Your task to perform on an android device: Set the phone to "Do not disturb". Image 0: 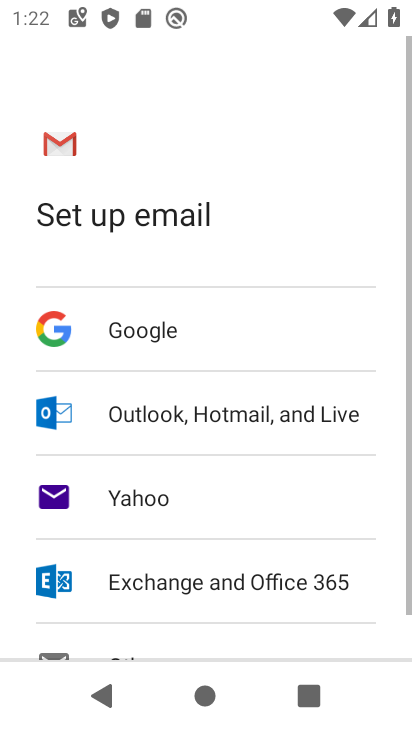
Step 0: press home button
Your task to perform on an android device: Set the phone to "Do not disturb". Image 1: 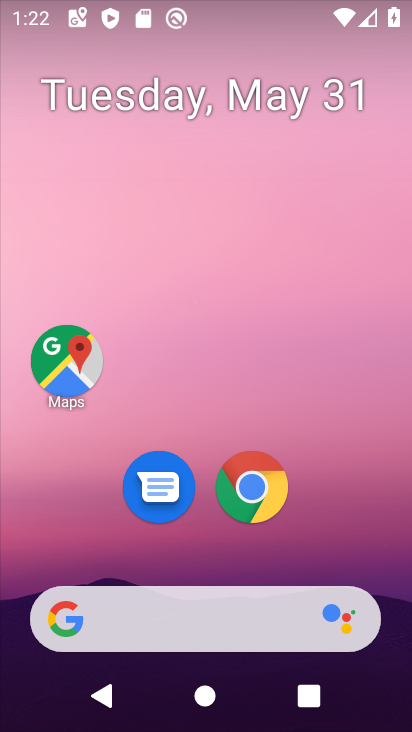
Step 1: drag from (64, 575) to (262, 15)
Your task to perform on an android device: Set the phone to "Do not disturb". Image 2: 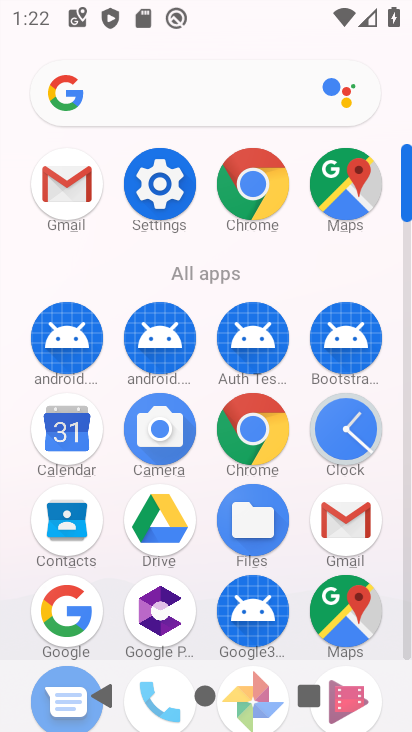
Step 2: drag from (123, 533) to (228, 236)
Your task to perform on an android device: Set the phone to "Do not disturb". Image 3: 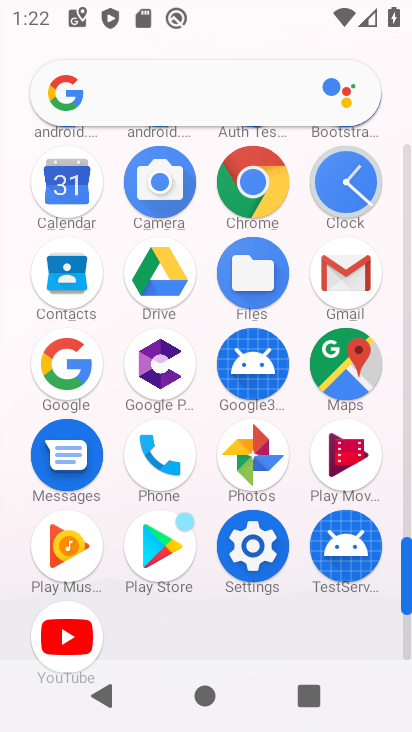
Step 3: click (236, 562)
Your task to perform on an android device: Set the phone to "Do not disturb". Image 4: 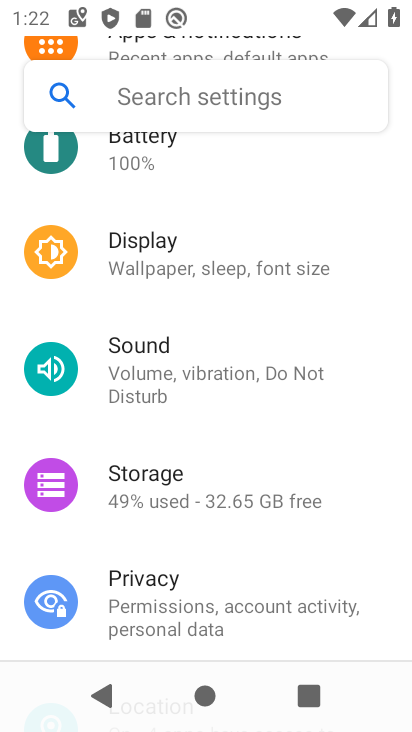
Step 4: drag from (214, 215) to (215, 564)
Your task to perform on an android device: Set the phone to "Do not disturb". Image 5: 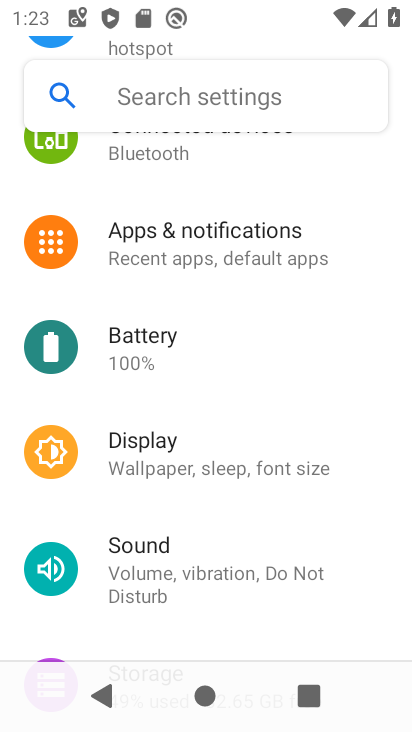
Step 5: click (240, 258)
Your task to perform on an android device: Set the phone to "Do not disturb". Image 6: 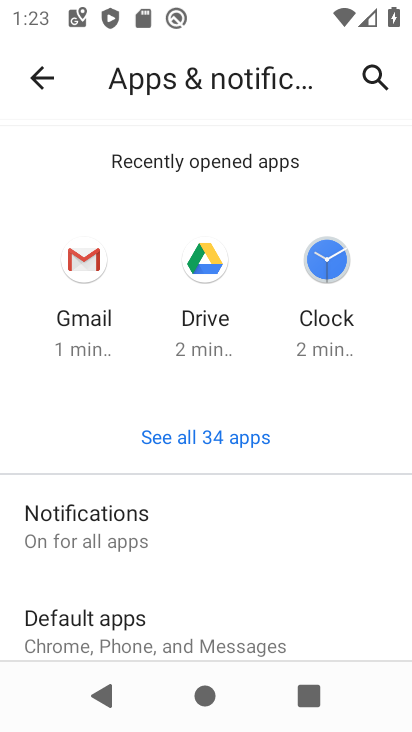
Step 6: drag from (113, 520) to (266, 96)
Your task to perform on an android device: Set the phone to "Do not disturb". Image 7: 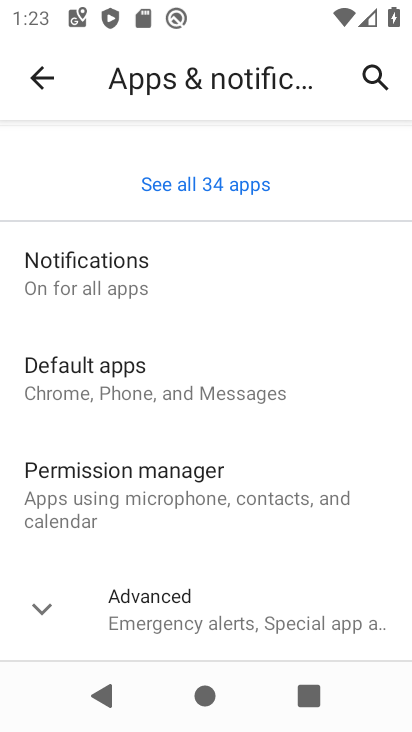
Step 7: click (166, 607)
Your task to perform on an android device: Set the phone to "Do not disturb". Image 8: 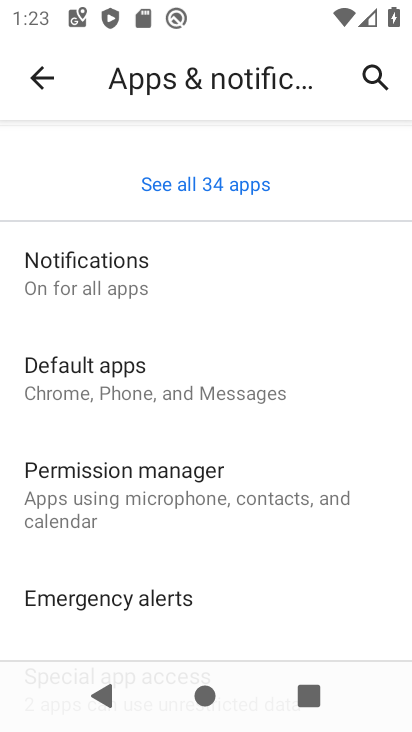
Step 8: drag from (166, 607) to (278, 237)
Your task to perform on an android device: Set the phone to "Do not disturb". Image 9: 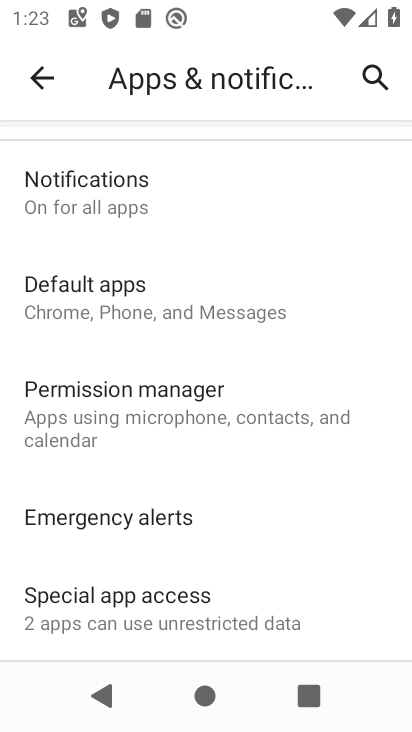
Step 9: click (153, 174)
Your task to perform on an android device: Set the phone to "Do not disturb". Image 10: 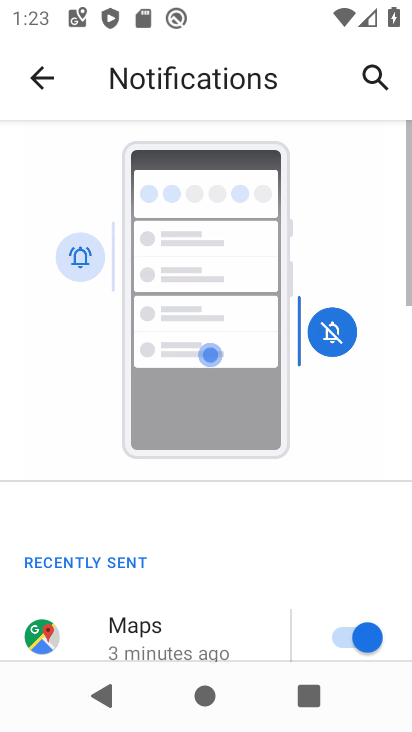
Step 10: drag from (167, 632) to (302, 0)
Your task to perform on an android device: Set the phone to "Do not disturb". Image 11: 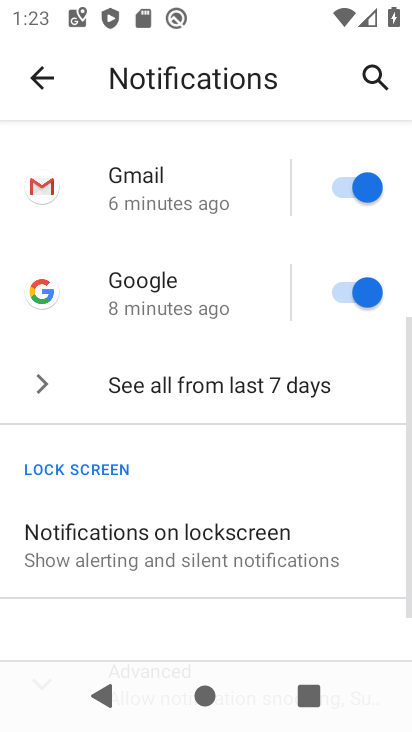
Step 11: drag from (168, 543) to (272, 31)
Your task to perform on an android device: Set the phone to "Do not disturb". Image 12: 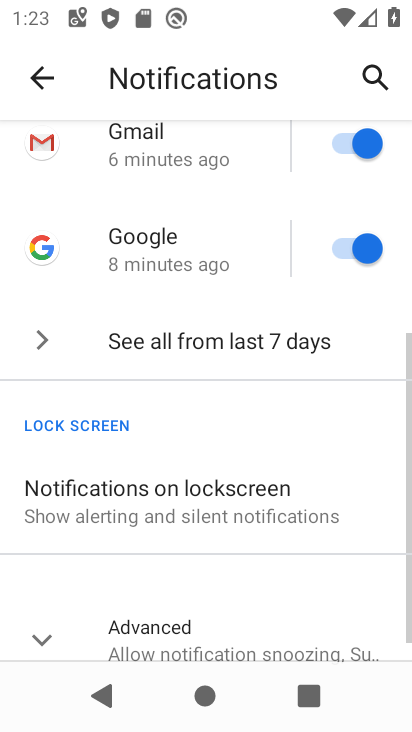
Step 12: click (205, 628)
Your task to perform on an android device: Set the phone to "Do not disturb". Image 13: 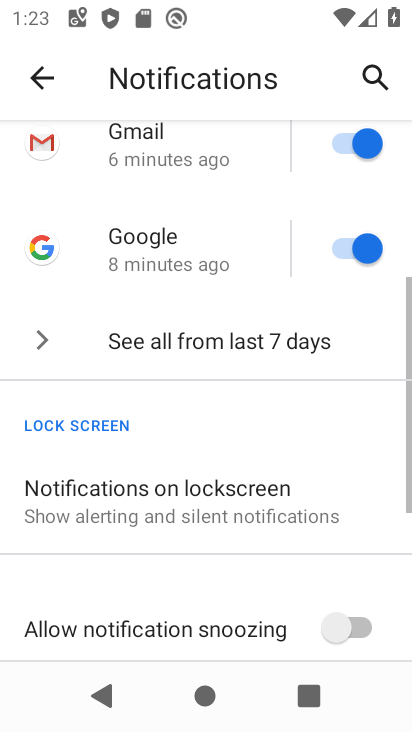
Step 13: drag from (210, 605) to (363, 16)
Your task to perform on an android device: Set the phone to "Do not disturb". Image 14: 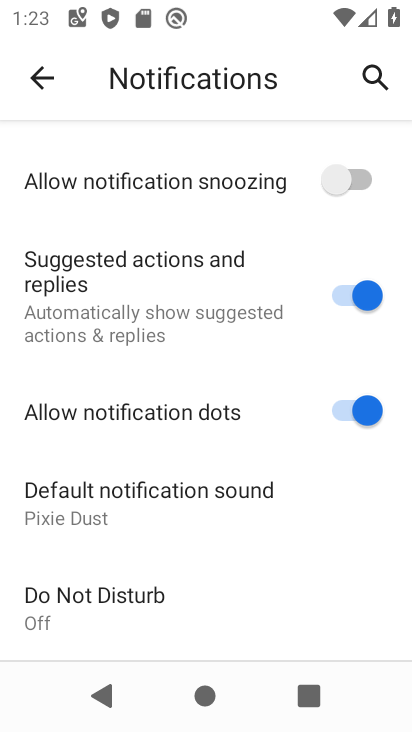
Step 14: click (239, 613)
Your task to perform on an android device: Set the phone to "Do not disturb". Image 15: 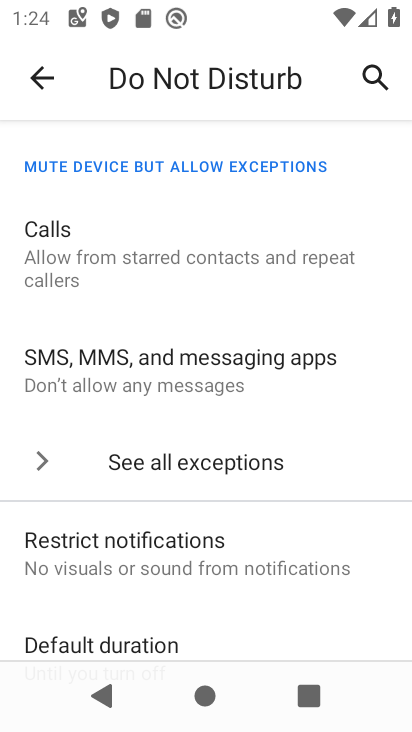
Step 15: drag from (215, 665) to (333, 74)
Your task to perform on an android device: Set the phone to "Do not disturb". Image 16: 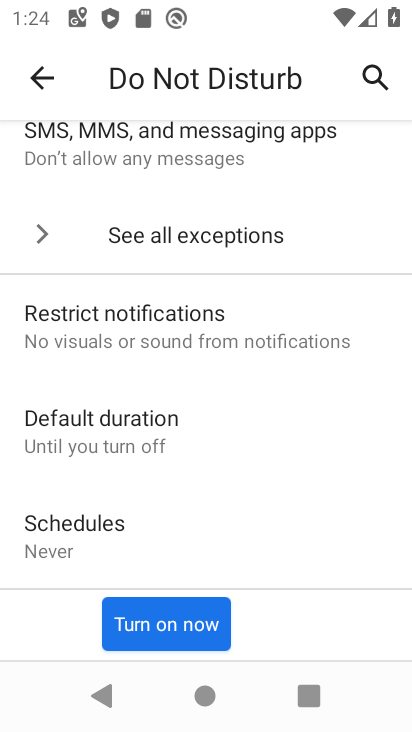
Step 16: click (193, 627)
Your task to perform on an android device: Set the phone to "Do not disturb". Image 17: 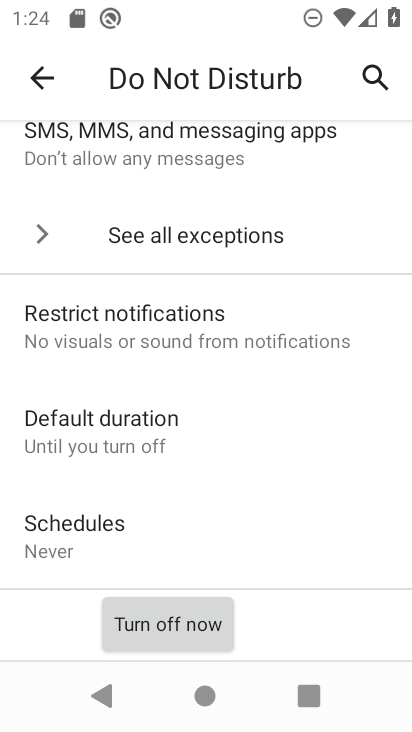
Step 17: task complete